Your task to perform on an android device: Show me productivity apps on the Play Store Image 0: 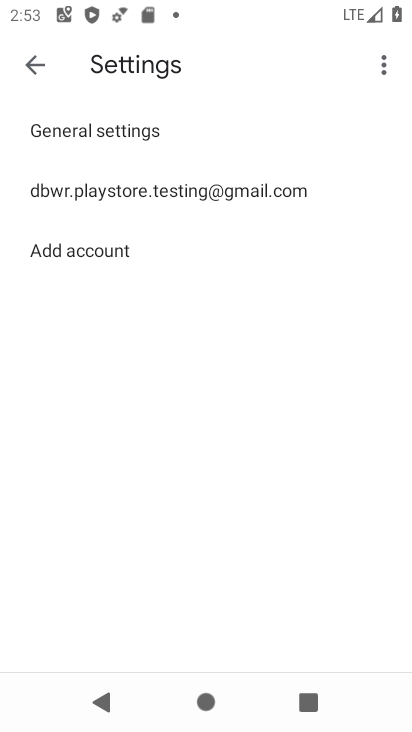
Step 0: press home button
Your task to perform on an android device: Show me productivity apps on the Play Store Image 1: 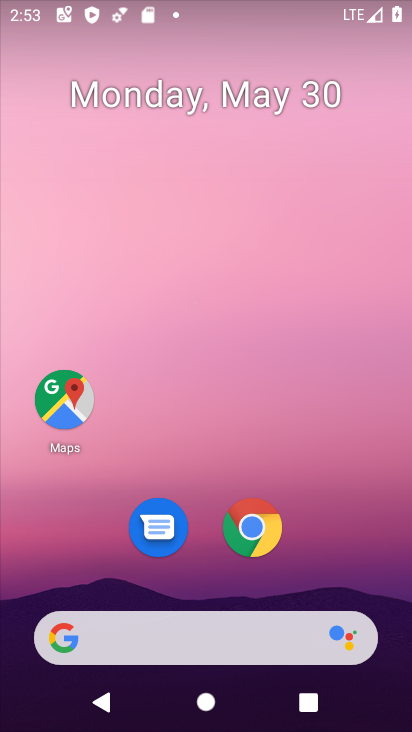
Step 1: drag from (316, 569) to (324, 142)
Your task to perform on an android device: Show me productivity apps on the Play Store Image 2: 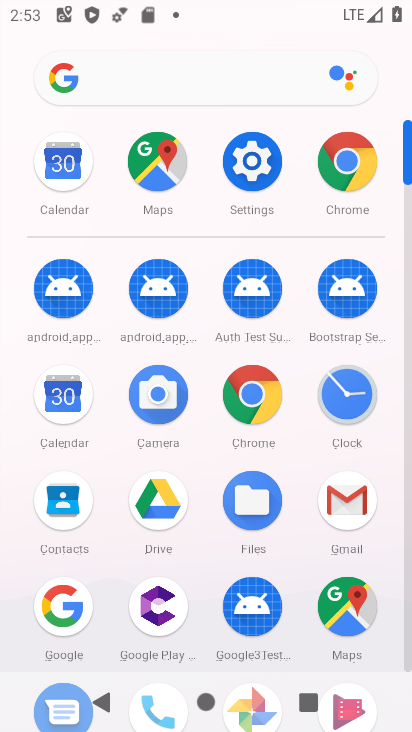
Step 2: drag from (202, 262) to (222, 4)
Your task to perform on an android device: Show me productivity apps on the Play Store Image 3: 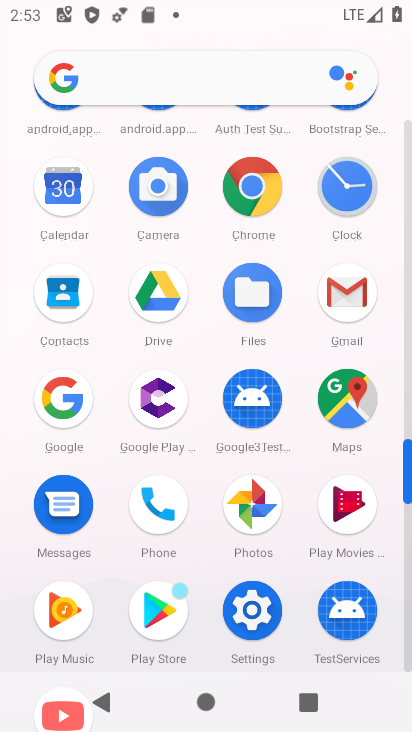
Step 3: click (154, 607)
Your task to perform on an android device: Show me productivity apps on the Play Store Image 4: 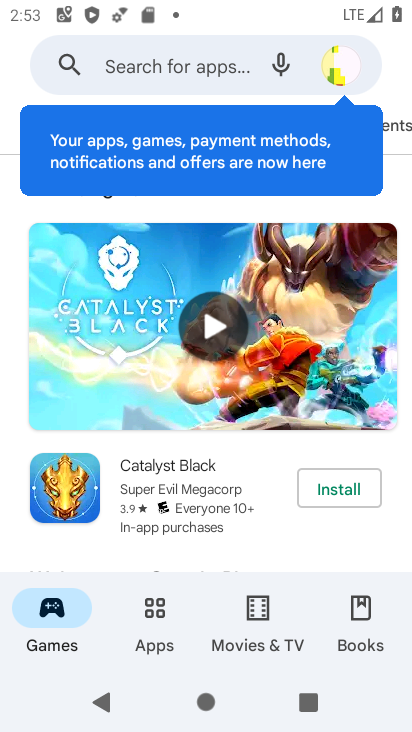
Step 4: click (200, 59)
Your task to perform on an android device: Show me productivity apps on the Play Store Image 5: 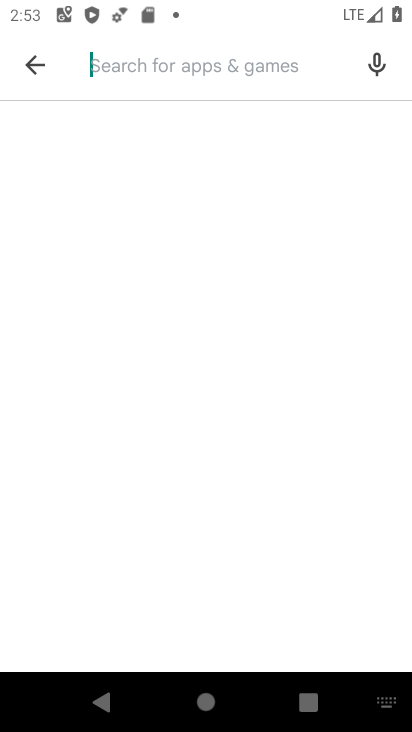
Step 5: type "productivity apps"
Your task to perform on an android device: Show me productivity apps on the Play Store Image 6: 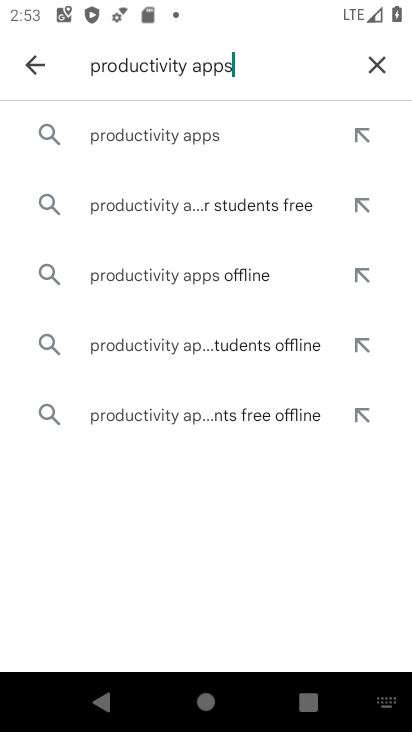
Step 6: click (123, 127)
Your task to perform on an android device: Show me productivity apps on the Play Store Image 7: 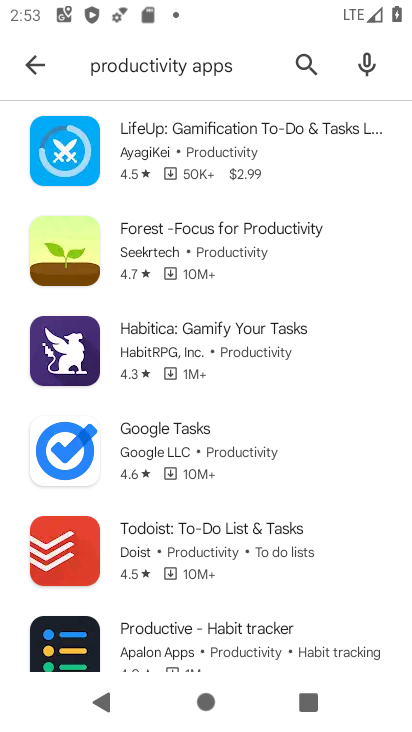
Step 7: task complete